Your task to perform on an android device: Show me recent news Image 0: 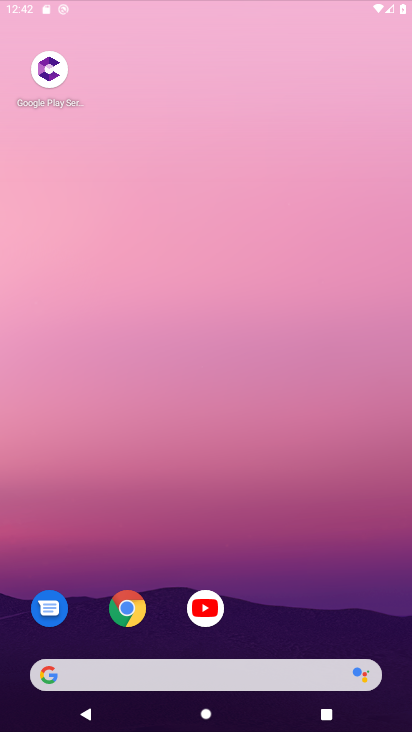
Step 0: click (48, 502)
Your task to perform on an android device: Show me recent news Image 1: 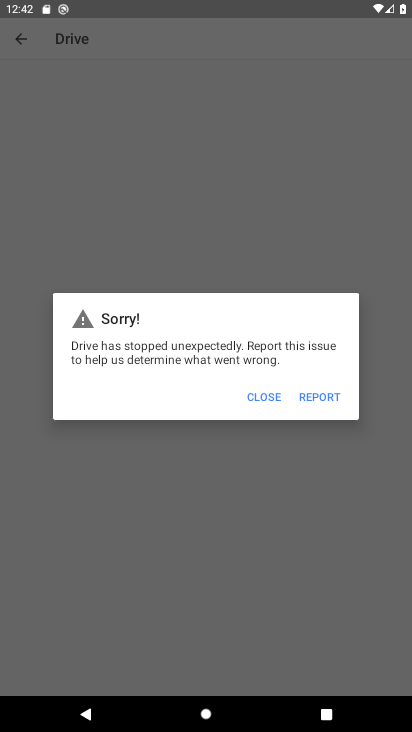
Step 1: click (275, 399)
Your task to perform on an android device: Show me recent news Image 2: 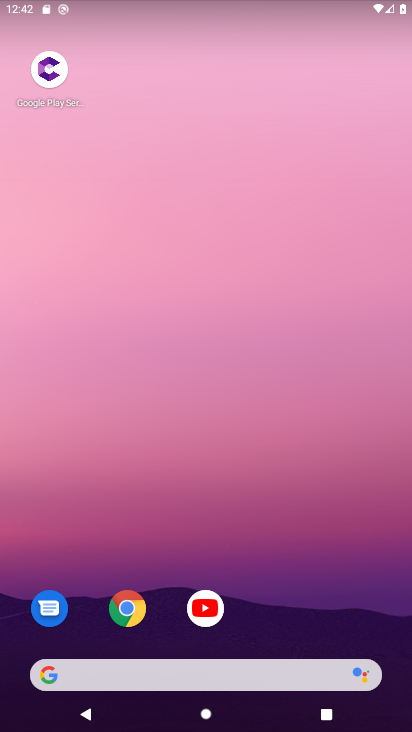
Step 2: task complete